Your task to perform on an android device: add a contact in the contacts app Image 0: 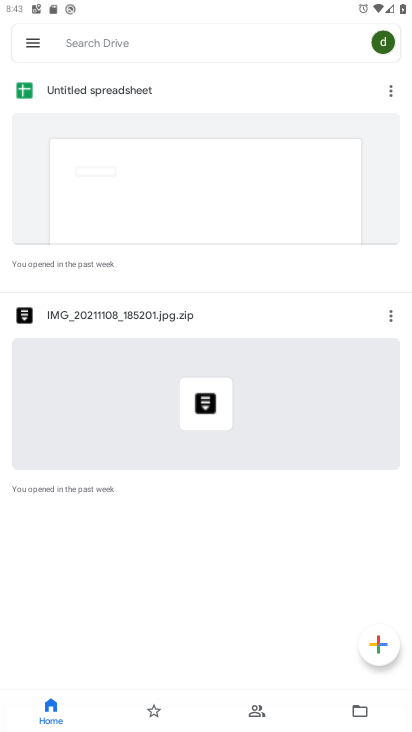
Step 0: press home button
Your task to perform on an android device: add a contact in the contacts app Image 1: 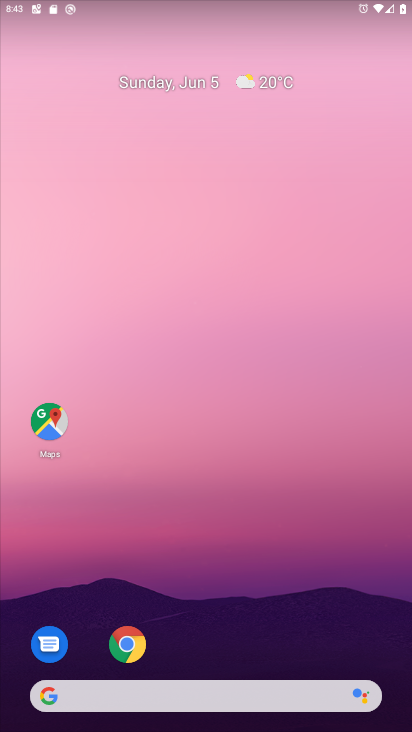
Step 1: drag from (285, 580) to (251, 171)
Your task to perform on an android device: add a contact in the contacts app Image 2: 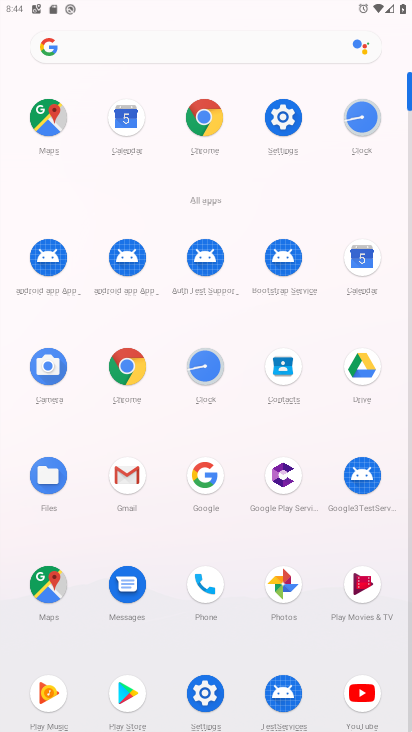
Step 2: click (280, 370)
Your task to perform on an android device: add a contact in the contacts app Image 3: 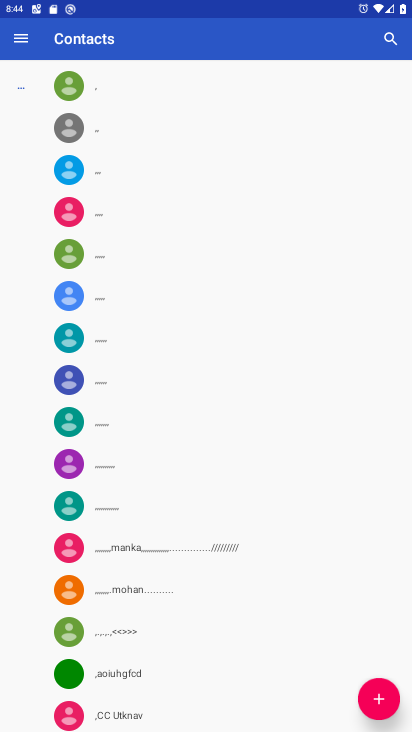
Step 3: click (388, 710)
Your task to perform on an android device: add a contact in the contacts app Image 4: 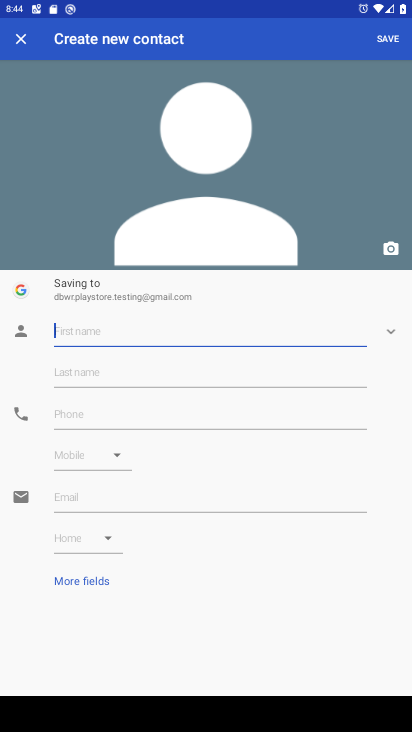
Step 4: click (165, 336)
Your task to perform on an android device: add a contact in the contacts app Image 5: 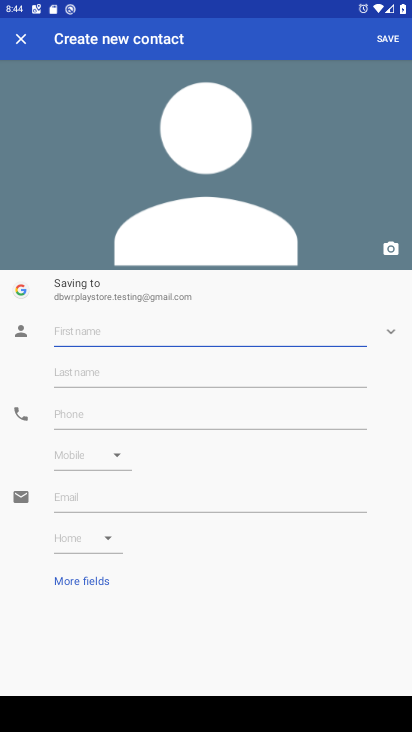
Step 5: type "laal"
Your task to perform on an android device: add a contact in the contacts app Image 6: 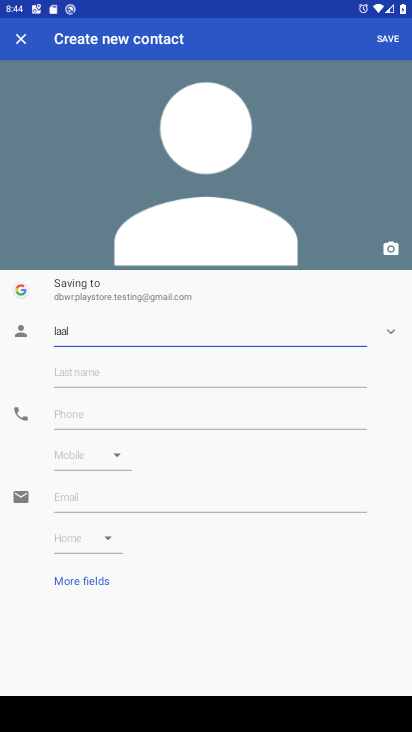
Step 6: click (91, 411)
Your task to perform on an android device: add a contact in the contacts app Image 7: 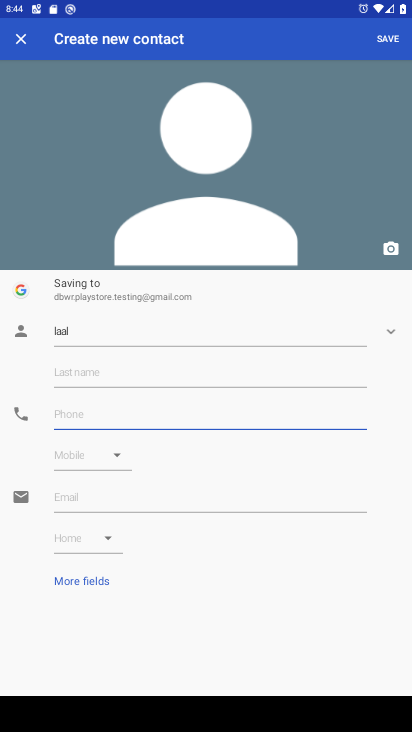
Step 7: type "2938389282"
Your task to perform on an android device: add a contact in the contacts app Image 8: 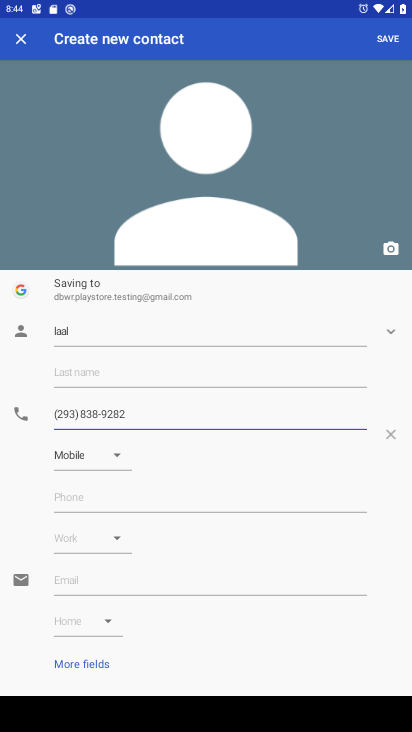
Step 8: click (383, 38)
Your task to perform on an android device: add a contact in the contacts app Image 9: 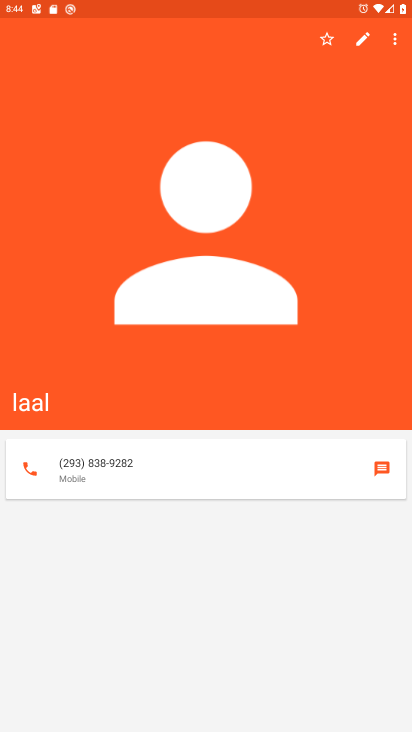
Step 9: task complete